Your task to perform on an android device: open a bookmark in the chrome app Image 0: 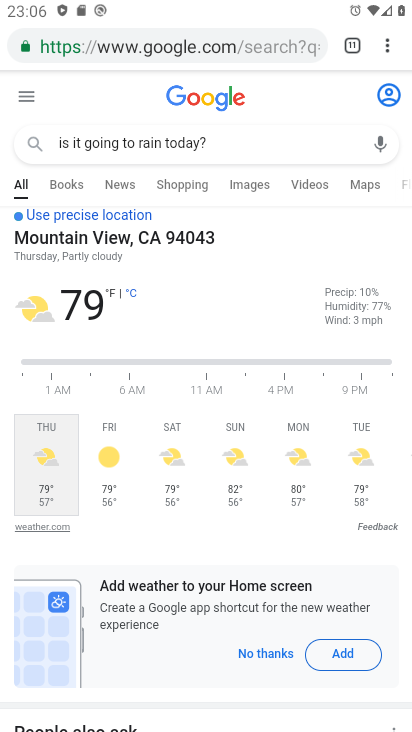
Step 0: press back button
Your task to perform on an android device: open a bookmark in the chrome app Image 1: 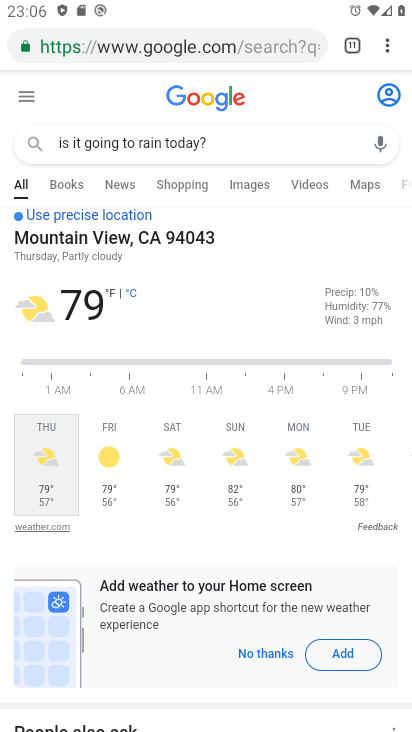
Step 1: press back button
Your task to perform on an android device: open a bookmark in the chrome app Image 2: 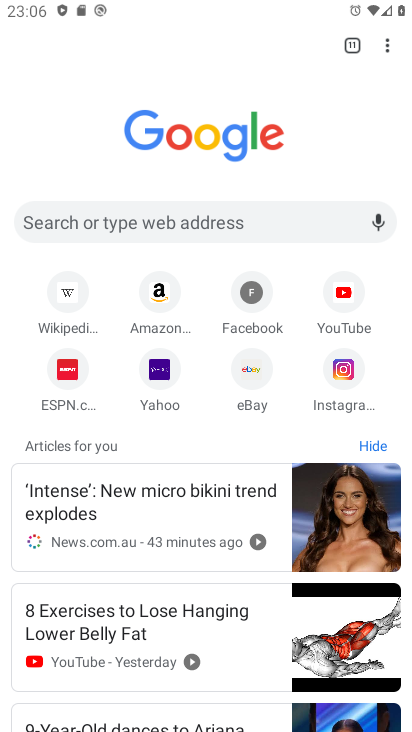
Step 2: press back button
Your task to perform on an android device: open a bookmark in the chrome app Image 3: 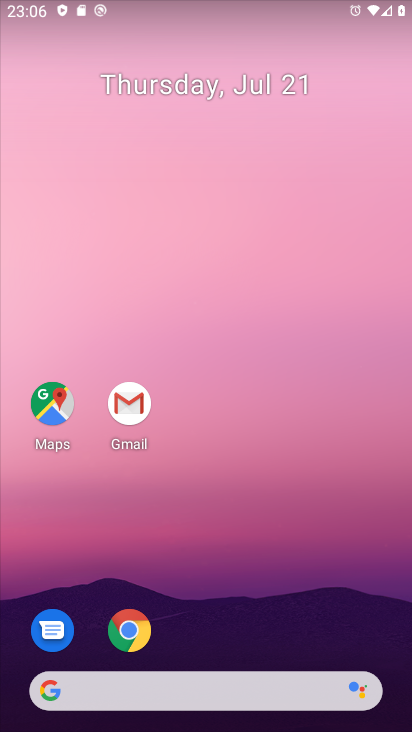
Step 3: drag from (191, 469) to (135, 105)
Your task to perform on an android device: open a bookmark in the chrome app Image 4: 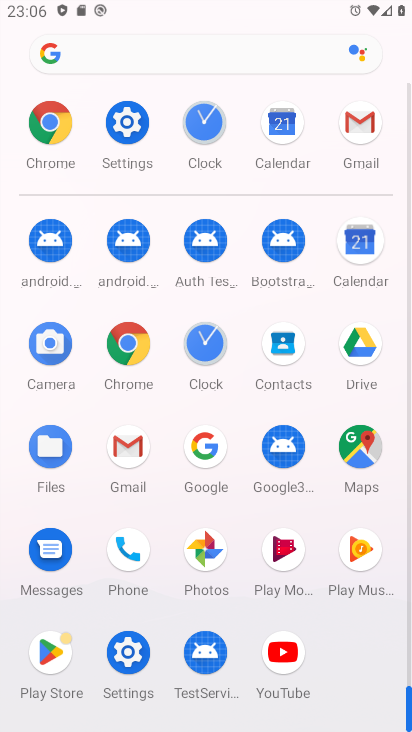
Step 4: click (37, 132)
Your task to perform on an android device: open a bookmark in the chrome app Image 5: 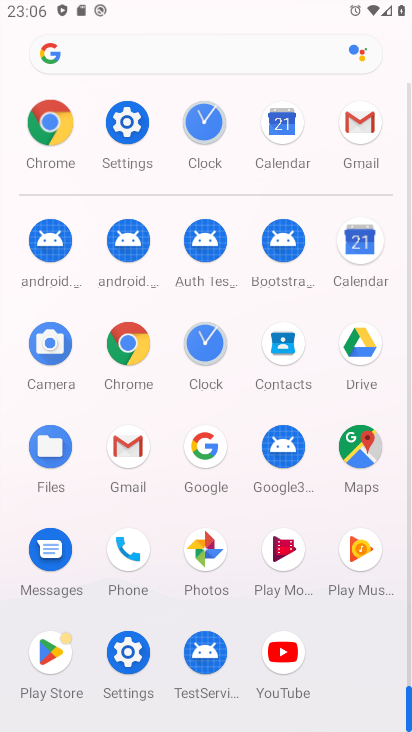
Step 5: click (45, 130)
Your task to perform on an android device: open a bookmark in the chrome app Image 6: 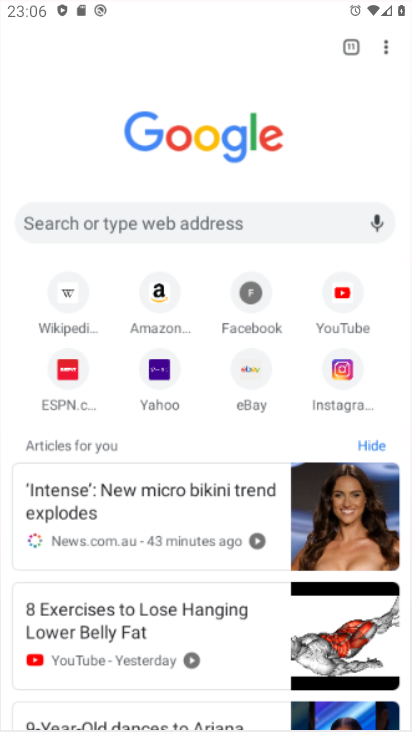
Step 6: click (43, 130)
Your task to perform on an android device: open a bookmark in the chrome app Image 7: 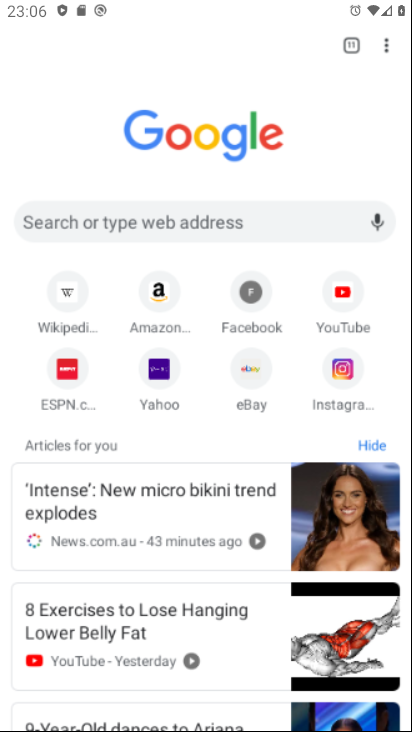
Step 7: click (43, 130)
Your task to perform on an android device: open a bookmark in the chrome app Image 8: 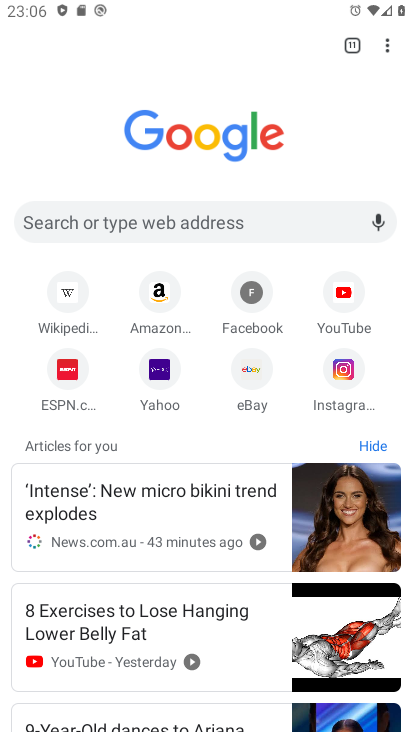
Step 8: drag from (384, 50) to (227, 170)
Your task to perform on an android device: open a bookmark in the chrome app Image 9: 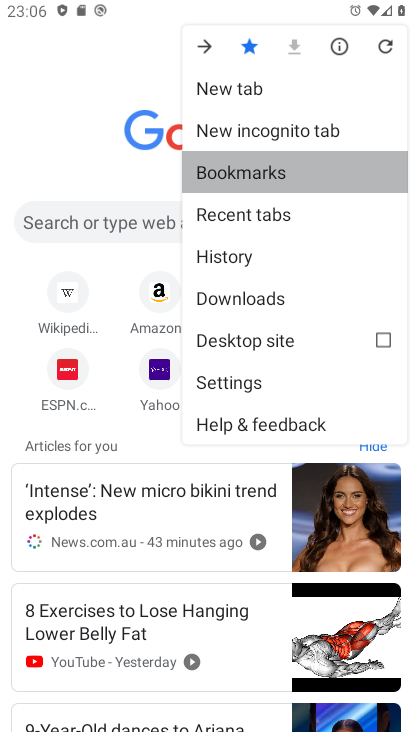
Step 9: click (229, 172)
Your task to perform on an android device: open a bookmark in the chrome app Image 10: 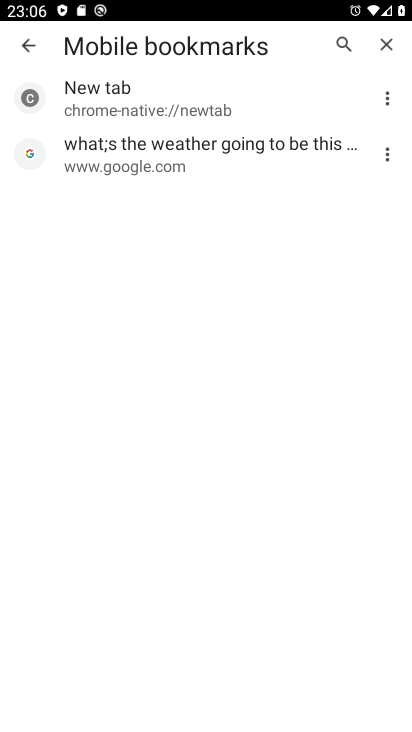
Step 10: task complete